Your task to perform on an android device: turn off notifications in google photos Image 0: 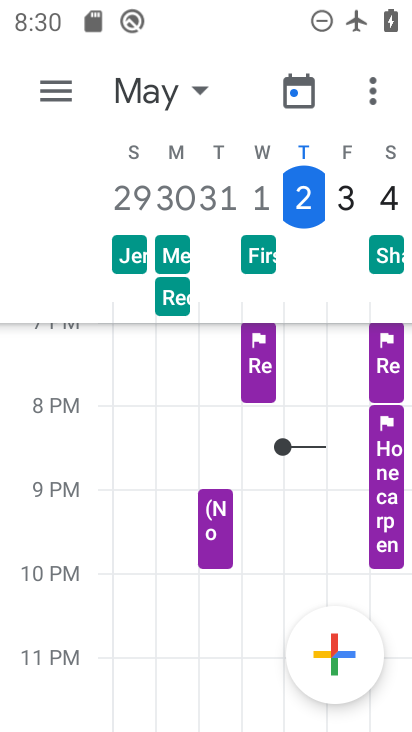
Step 0: press home button
Your task to perform on an android device: turn off notifications in google photos Image 1: 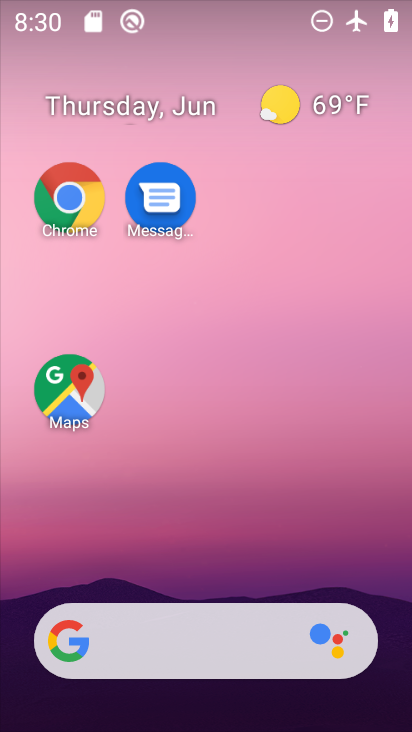
Step 1: drag from (208, 565) to (168, 182)
Your task to perform on an android device: turn off notifications in google photos Image 2: 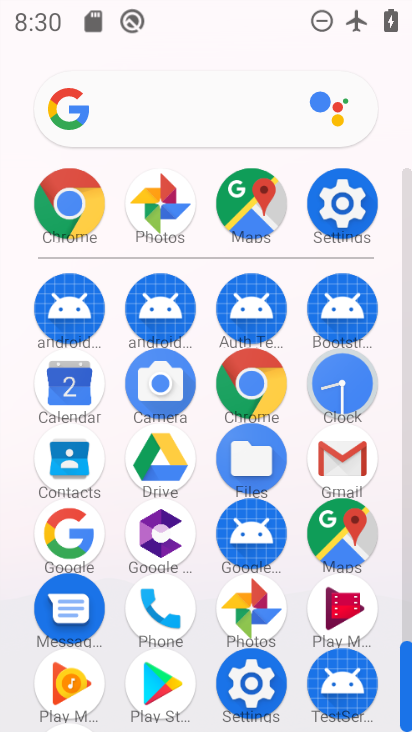
Step 2: click (263, 594)
Your task to perform on an android device: turn off notifications in google photos Image 3: 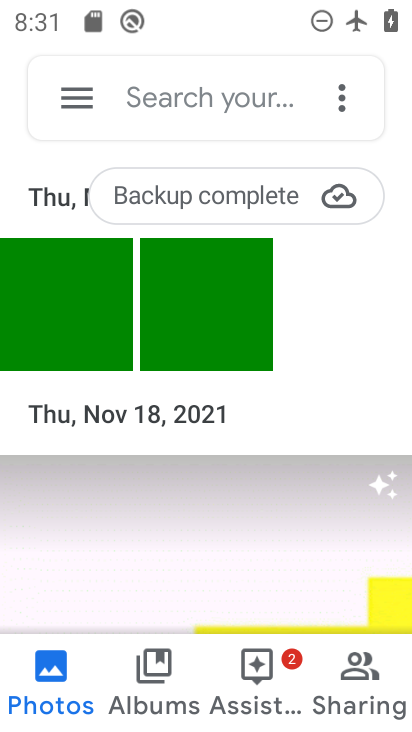
Step 3: click (84, 104)
Your task to perform on an android device: turn off notifications in google photos Image 4: 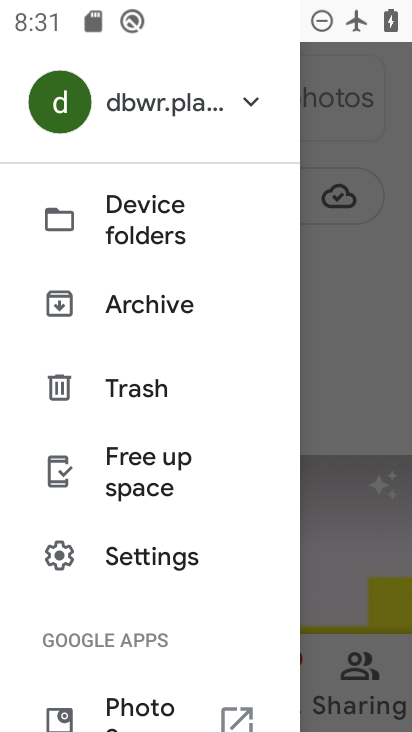
Step 4: click (131, 537)
Your task to perform on an android device: turn off notifications in google photos Image 5: 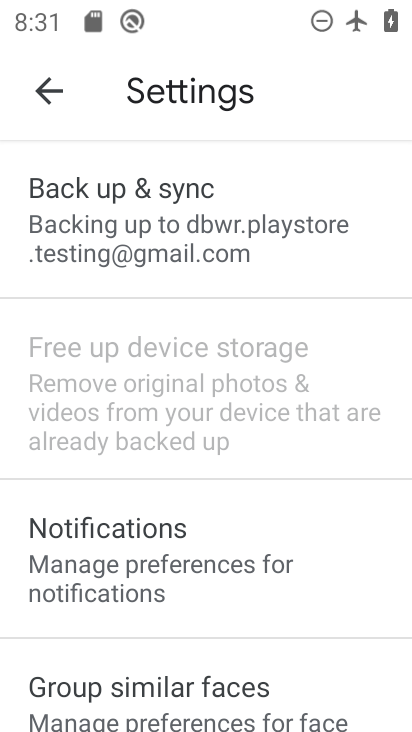
Step 5: click (104, 527)
Your task to perform on an android device: turn off notifications in google photos Image 6: 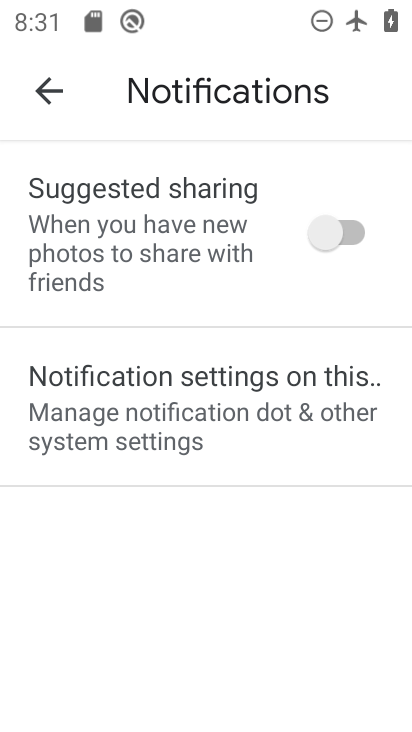
Step 6: click (278, 357)
Your task to perform on an android device: turn off notifications in google photos Image 7: 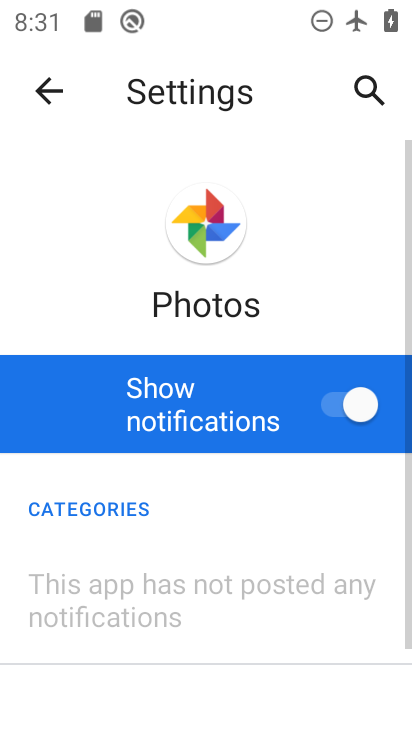
Step 7: click (363, 415)
Your task to perform on an android device: turn off notifications in google photos Image 8: 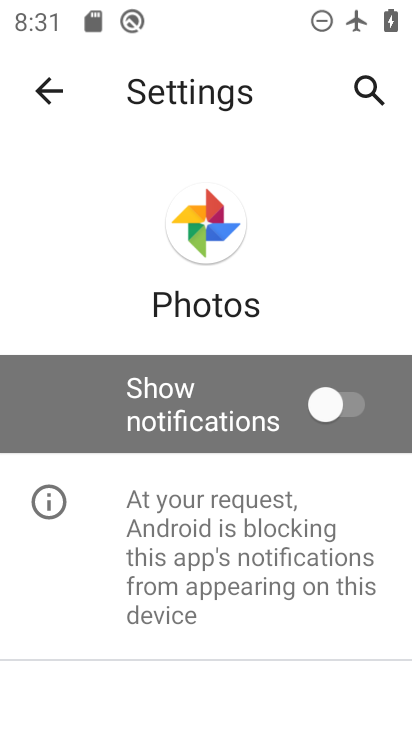
Step 8: task complete